Your task to perform on an android device: open app "TextNow: Call + Text Unlimited" Image 0: 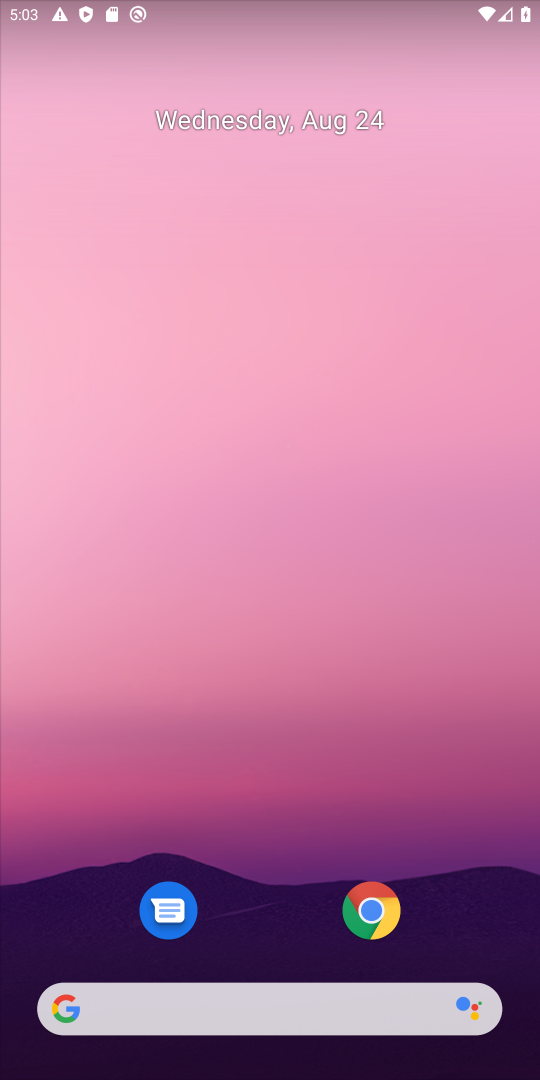
Step 0: drag from (281, 1005) to (33, 95)
Your task to perform on an android device: open app "TextNow: Call + Text Unlimited" Image 1: 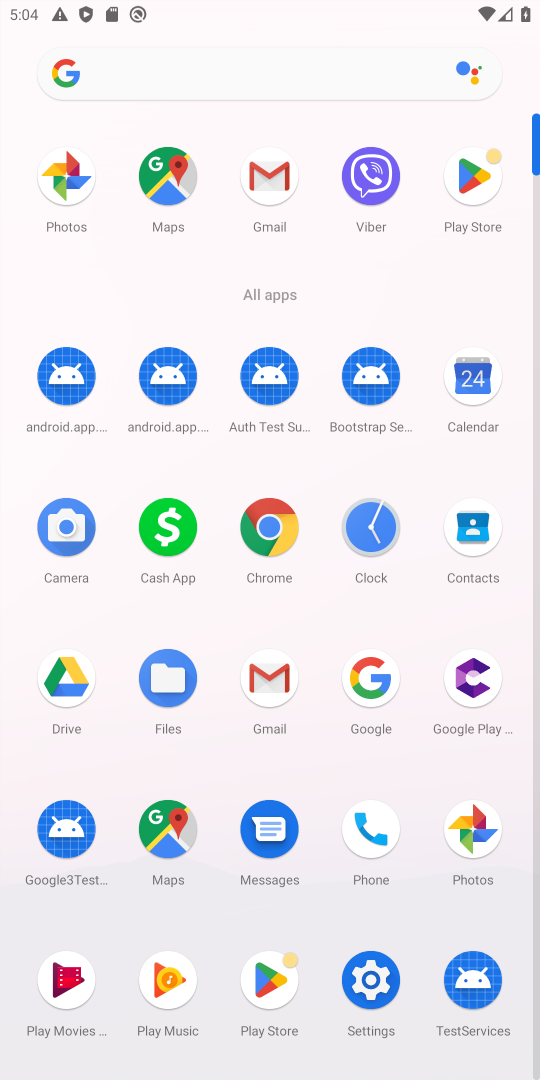
Step 1: click (458, 185)
Your task to perform on an android device: open app "TextNow: Call + Text Unlimited" Image 2: 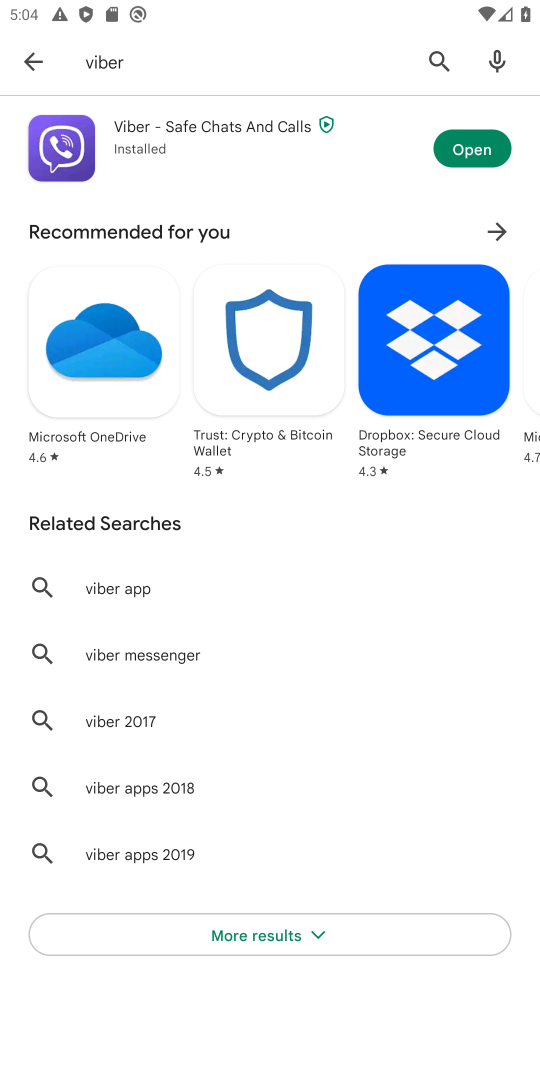
Step 2: click (432, 62)
Your task to perform on an android device: open app "TextNow: Call + Text Unlimited" Image 3: 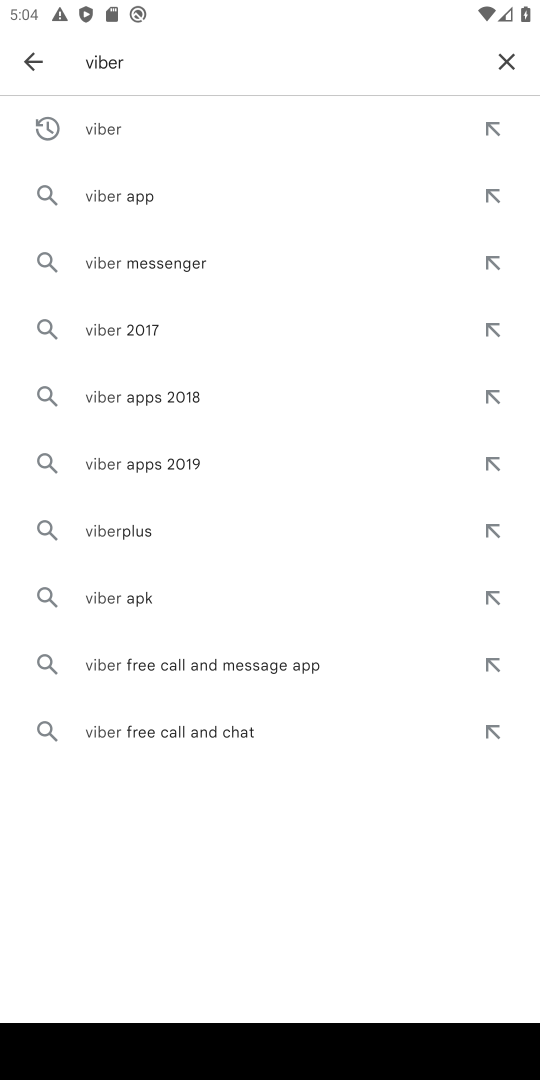
Step 3: click (497, 60)
Your task to perform on an android device: open app "TextNow: Call + Text Unlimited" Image 4: 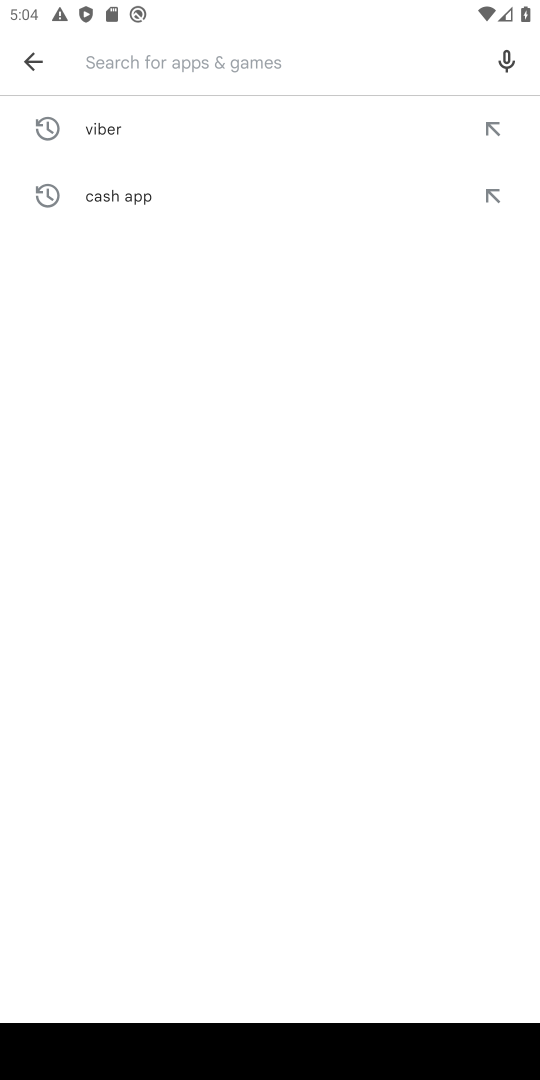
Step 4: type "textnow"
Your task to perform on an android device: open app "TextNow: Call + Text Unlimited" Image 5: 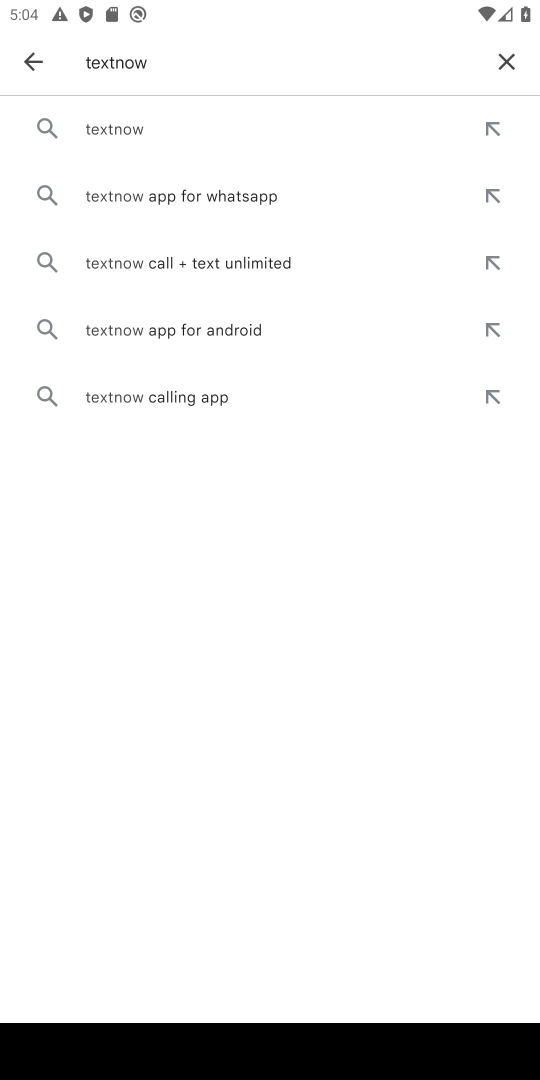
Step 5: click (124, 125)
Your task to perform on an android device: open app "TextNow: Call + Text Unlimited" Image 6: 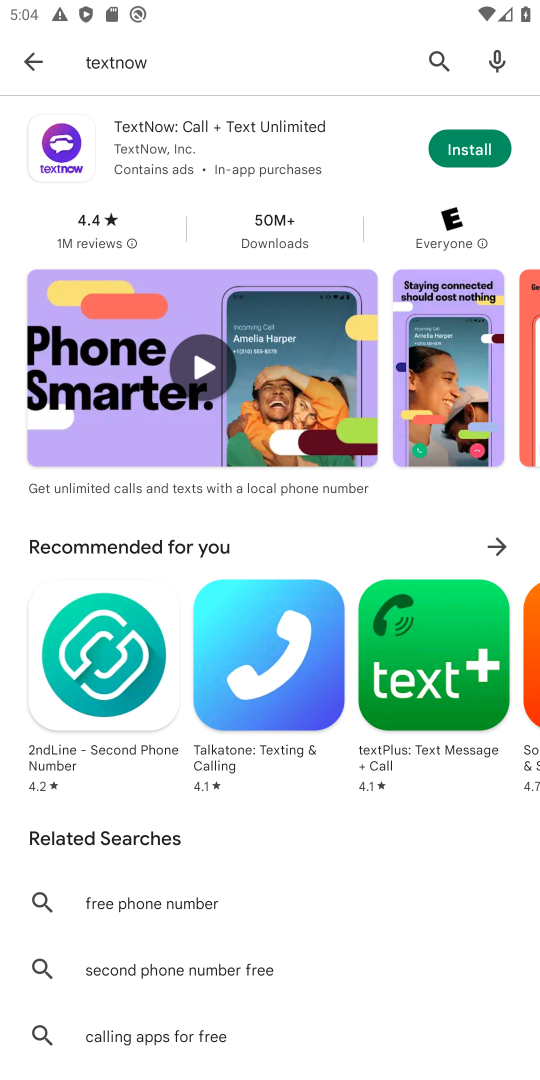
Step 6: task complete